Your task to perform on an android device: What's the weather going to be tomorrow? Image 0: 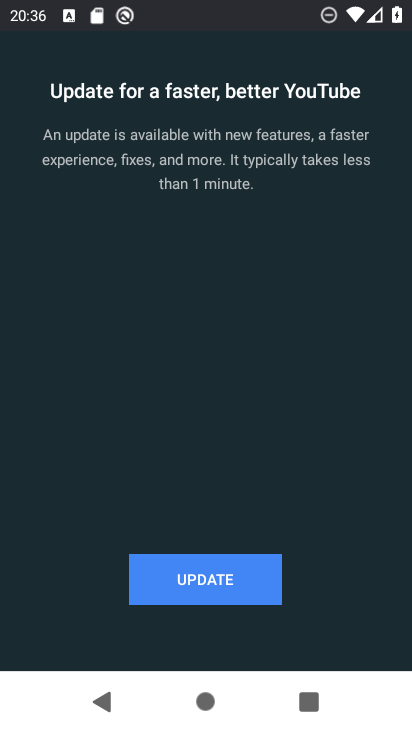
Step 0: press home button
Your task to perform on an android device: What's the weather going to be tomorrow? Image 1: 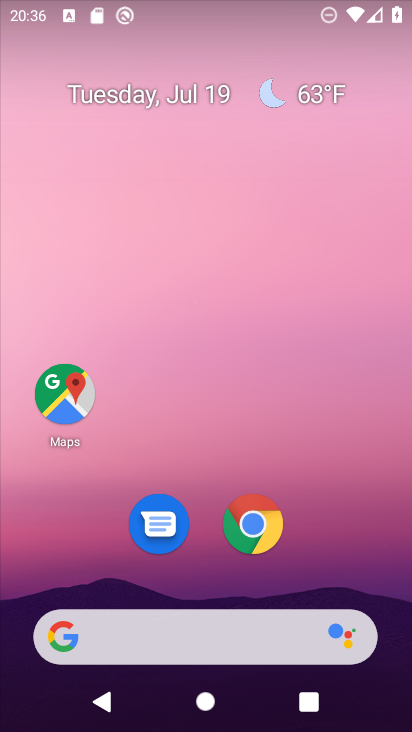
Step 1: click (303, 84)
Your task to perform on an android device: What's the weather going to be tomorrow? Image 2: 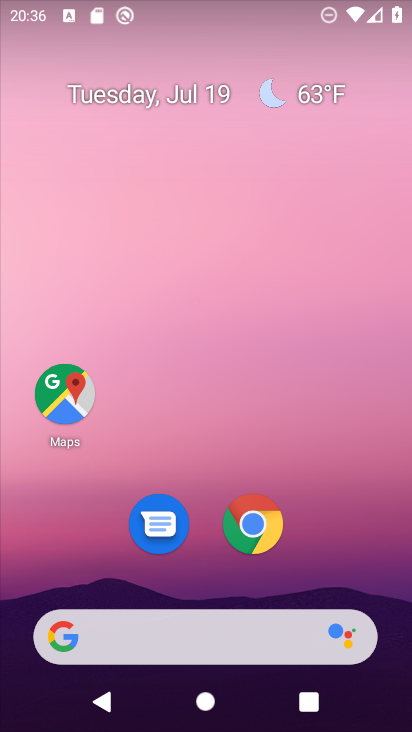
Step 2: click (303, 87)
Your task to perform on an android device: What's the weather going to be tomorrow? Image 3: 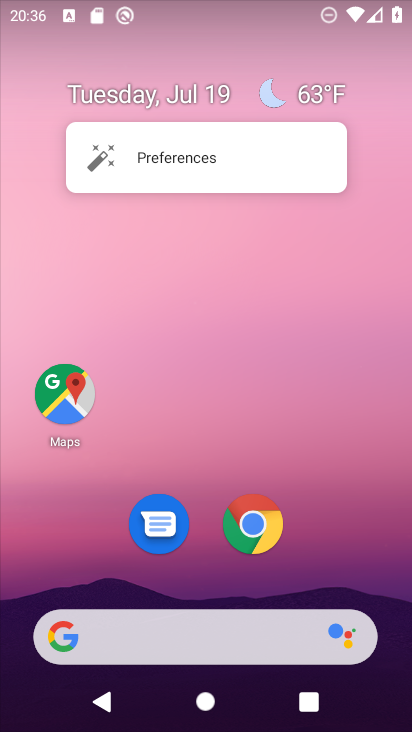
Step 3: click (291, 87)
Your task to perform on an android device: What's the weather going to be tomorrow? Image 4: 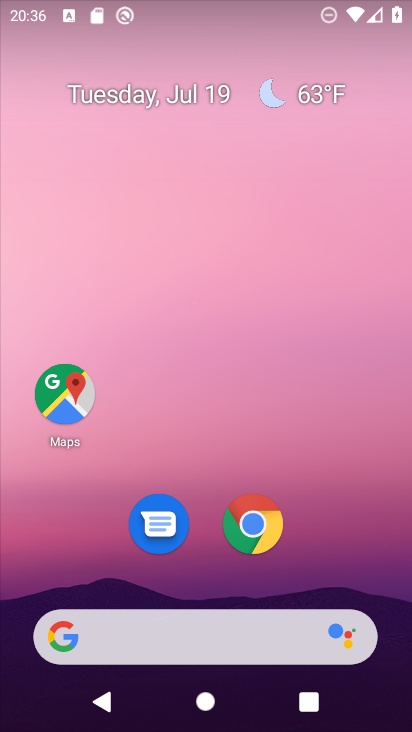
Step 4: click (310, 96)
Your task to perform on an android device: What's the weather going to be tomorrow? Image 5: 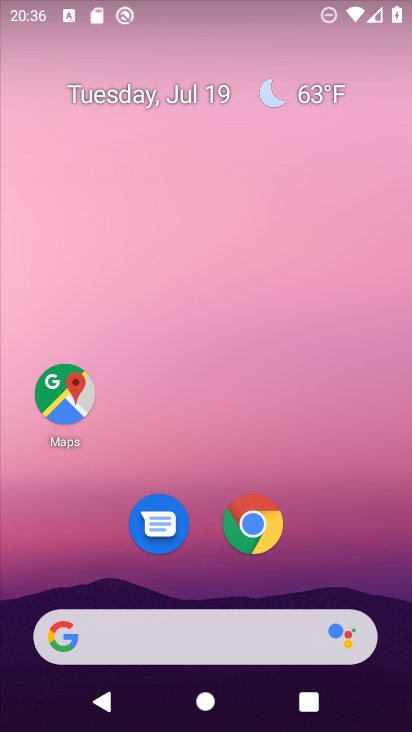
Step 5: click (287, 96)
Your task to perform on an android device: What's the weather going to be tomorrow? Image 6: 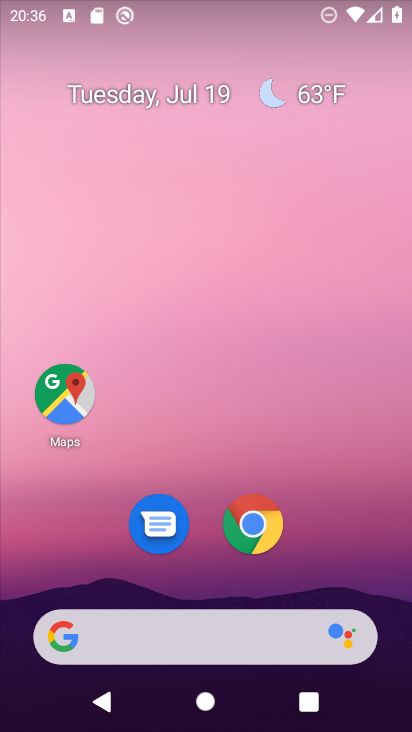
Step 6: click (223, 634)
Your task to perform on an android device: What's the weather going to be tomorrow? Image 7: 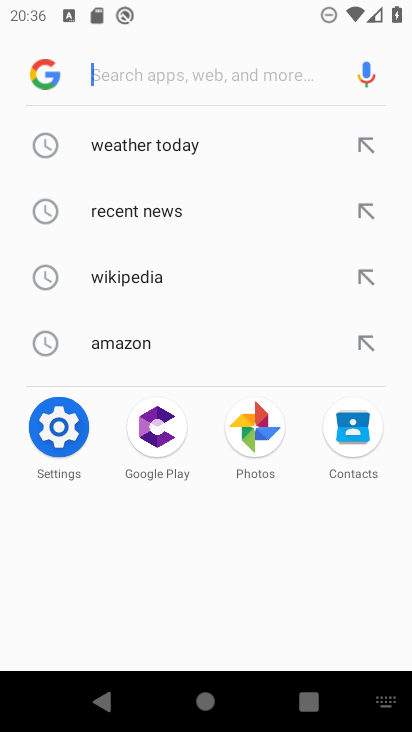
Step 7: click (124, 146)
Your task to perform on an android device: What's the weather going to be tomorrow? Image 8: 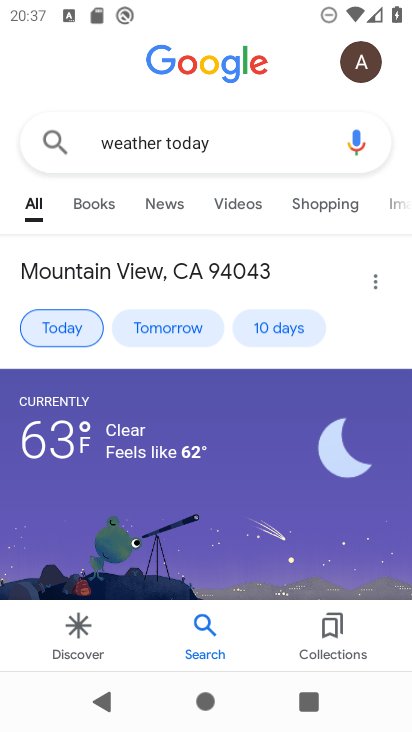
Step 8: click (74, 326)
Your task to perform on an android device: What's the weather going to be tomorrow? Image 9: 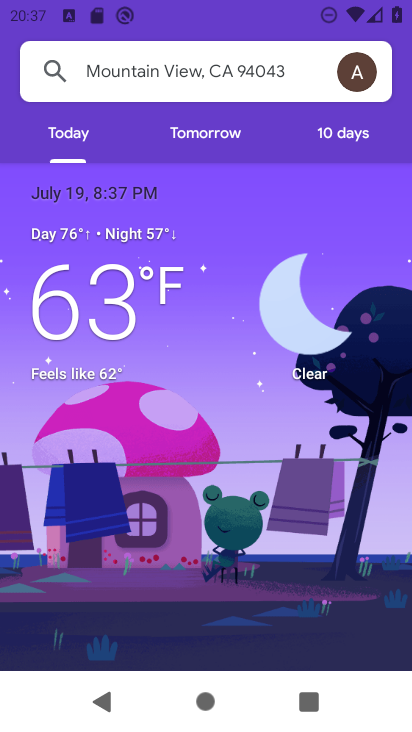
Step 9: click (209, 133)
Your task to perform on an android device: What's the weather going to be tomorrow? Image 10: 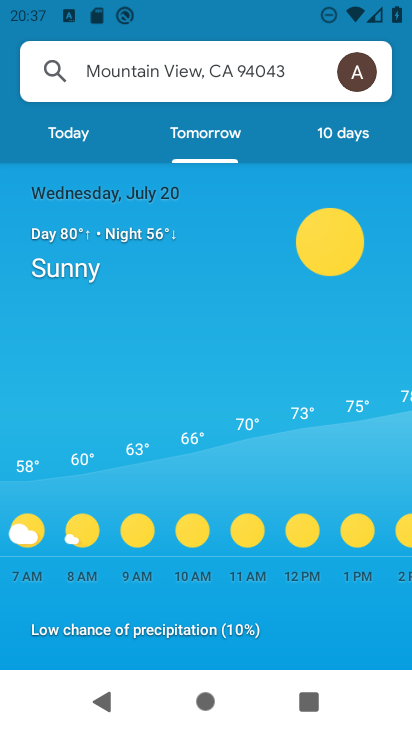
Step 10: task complete